Your task to perform on an android device: Search for a 1/4" hex shank drill bit on Lowe's. Image 0: 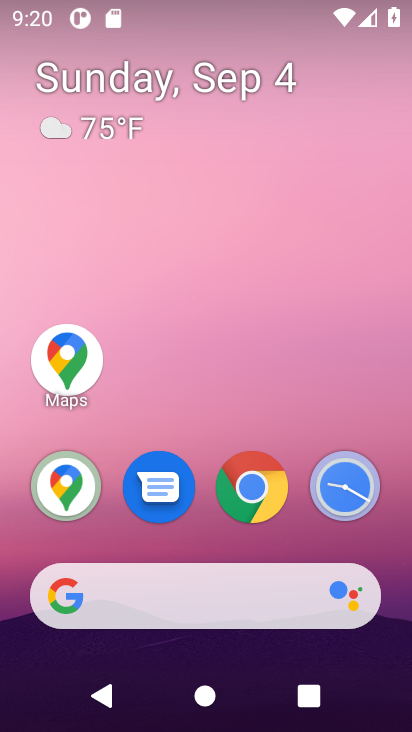
Step 0: click (181, 489)
Your task to perform on an android device: Search for a 1/4" hex shank drill bit on Lowe's. Image 1: 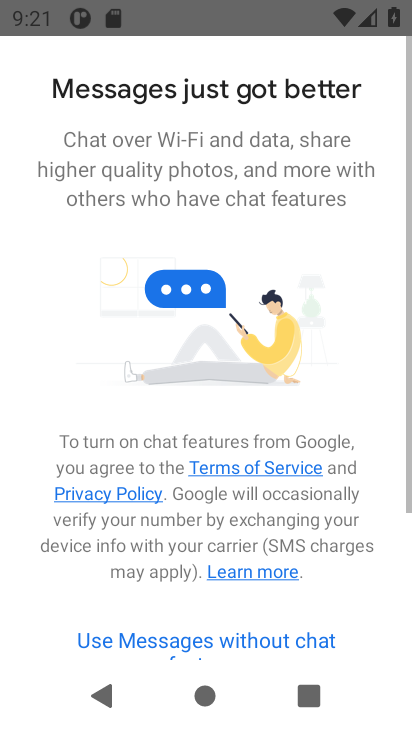
Step 1: task complete